Your task to perform on an android device: Search for "acer nitro" on bestbuy.com, select the first entry, add it to the cart, then select checkout. Image 0: 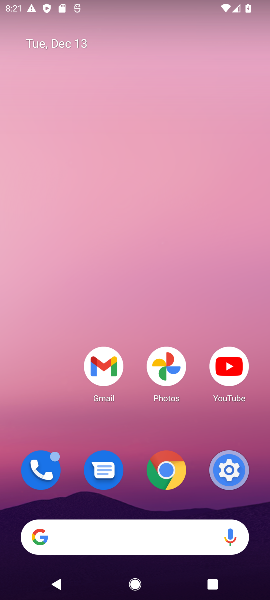
Step 0: press home button
Your task to perform on an android device: Search for "acer nitro" on bestbuy.com, select the first entry, add it to the cart, then select checkout. Image 1: 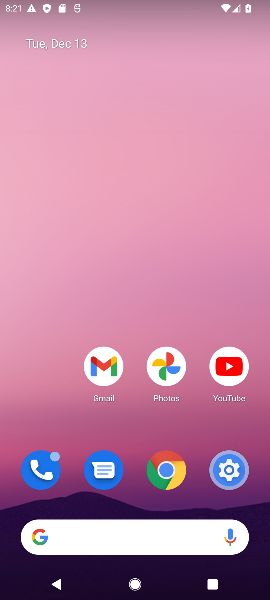
Step 1: click (82, 534)
Your task to perform on an android device: Search for "acer nitro" on bestbuy.com, select the first entry, add it to the cart, then select checkout. Image 2: 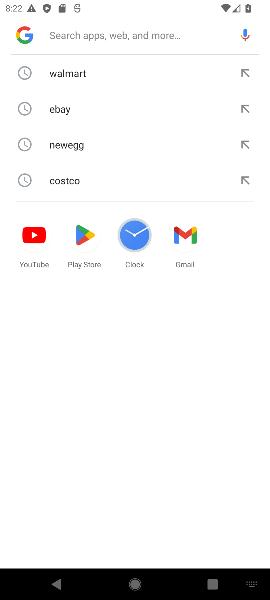
Step 2: type "bestbuy.com"
Your task to perform on an android device: Search for "acer nitro" on bestbuy.com, select the first entry, add it to the cart, then select checkout. Image 3: 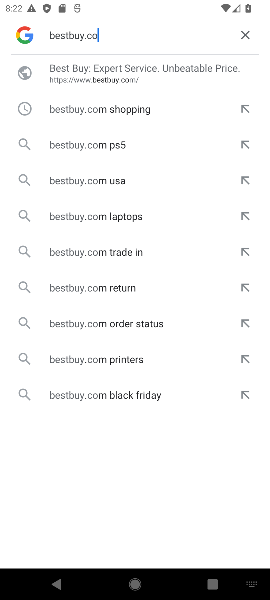
Step 3: press enter
Your task to perform on an android device: Search for "acer nitro" on bestbuy.com, select the first entry, add it to the cart, then select checkout. Image 4: 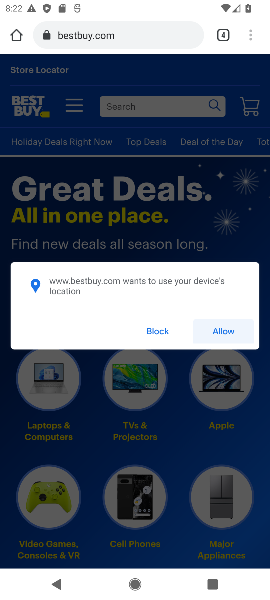
Step 4: click (159, 325)
Your task to perform on an android device: Search for "acer nitro" on bestbuy.com, select the first entry, add it to the cart, then select checkout. Image 5: 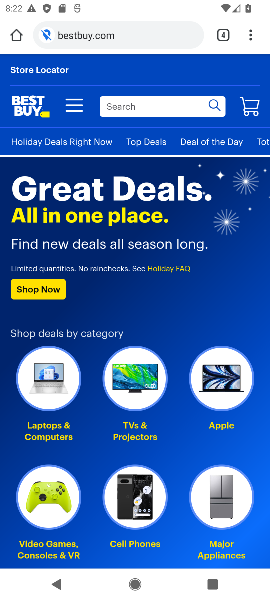
Step 5: click (128, 109)
Your task to perform on an android device: Search for "acer nitro" on bestbuy.com, select the first entry, add it to the cart, then select checkout. Image 6: 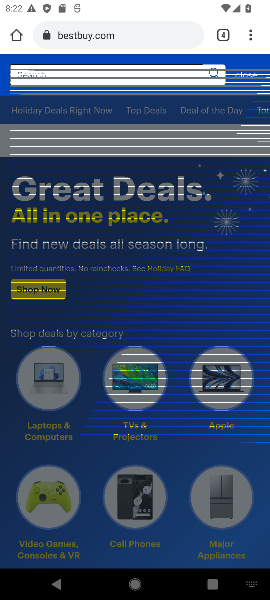
Step 6: type "acer nitro"
Your task to perform on an android device: Search for "acer nitro" on bestbuy.com, select the first entry, add it to the cart, then select checkout. Image 7: 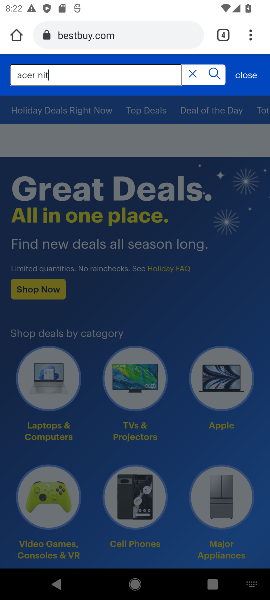
Step 7: press enter
Your task to perform on an android device: Search for "acer nitro" on bestbuy.com, select the first entry, add it to the cart, then select checkout. Image 8: 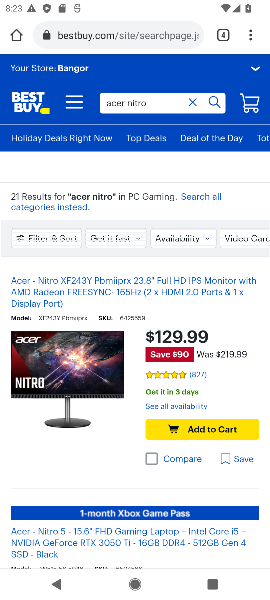
Step 8: click (202, 430)
Your task to perform on an android device: Search for "acer nitro" on bestbuy.com, select the first entry, add it to the cart, then select checkout. Image 9: 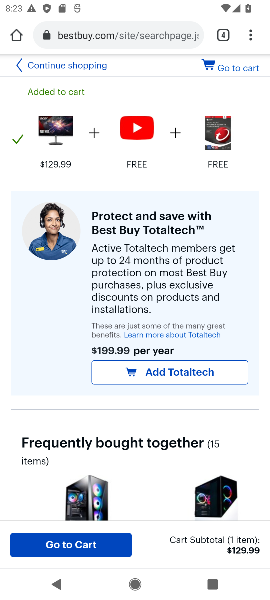
Step 9: click (62, 546)
Your task to perform on an android device: Search for "acer nitro" on bestbuy.com, select the first entry, add it to the cart, then select checkout. Image 10: 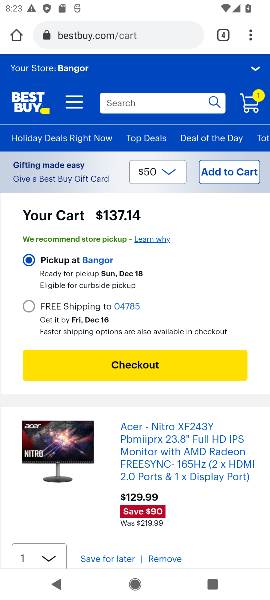
Step 10: click (115, 366)
Your task to perform on an android device: Search for "acer nitro" on bestbuy.com, select the first entry, add it to the cart, then select checkout. Image 11: 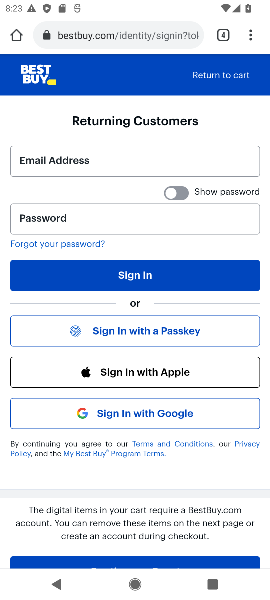
Step 11: task complete